Your task to perform on an android device: change the clock display to show seconds Image 0: 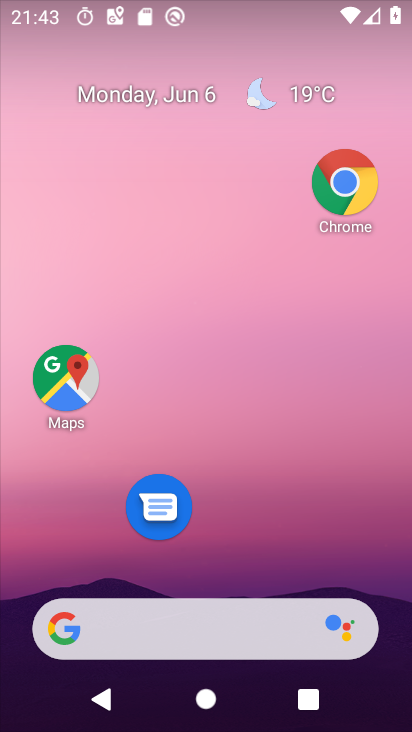
Step 0: press home button
Your task to perform on an android device: change the clock display to show seconds Image 1: 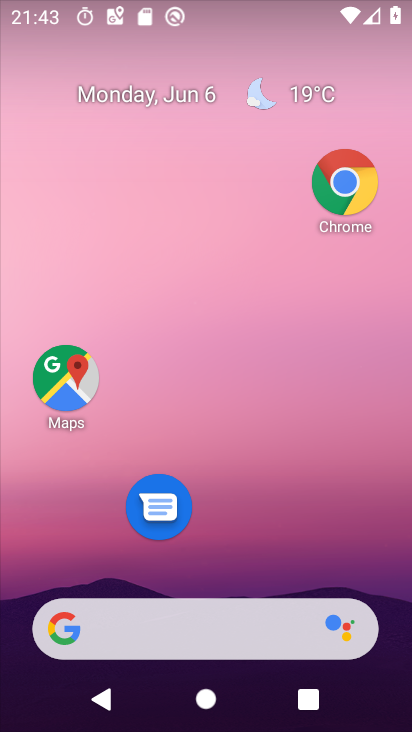
Step 1: drag from (396, 535) to (371, 45)
Your task to perform on an android device: change the clock display to show seconds Image 2: 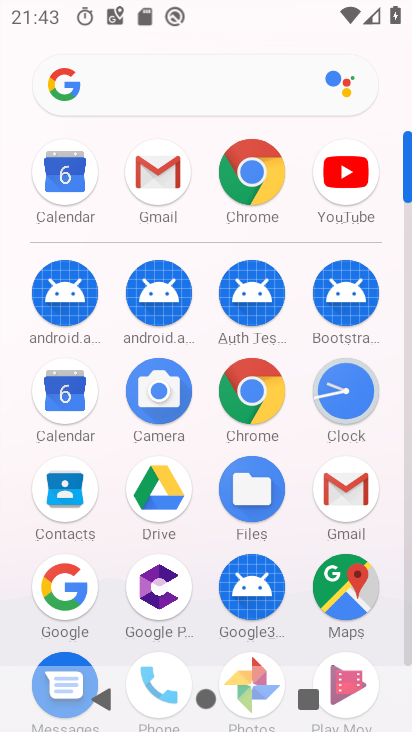
Step 2: click (322, 390)
Your task to perform on an android device: change the clock display to show seconds Image 3: 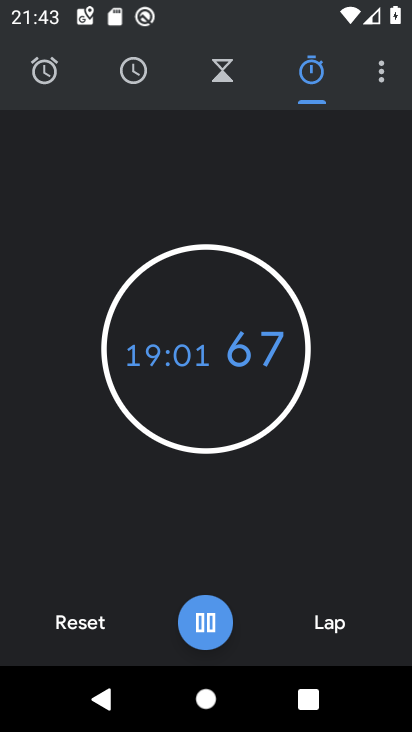
Step 3: click (392, 70)
Your task to perform on an android device: change the clock display to show seconds Image 4: 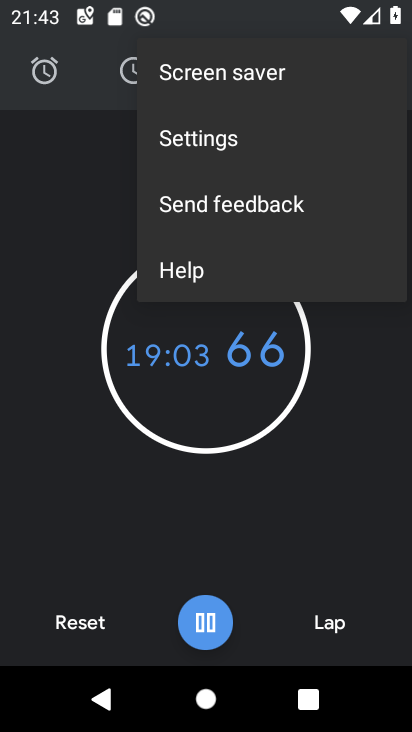
Step 4: click (273, 149)
Your task to perform on an android device: change the clock display to show seconds Image 5: 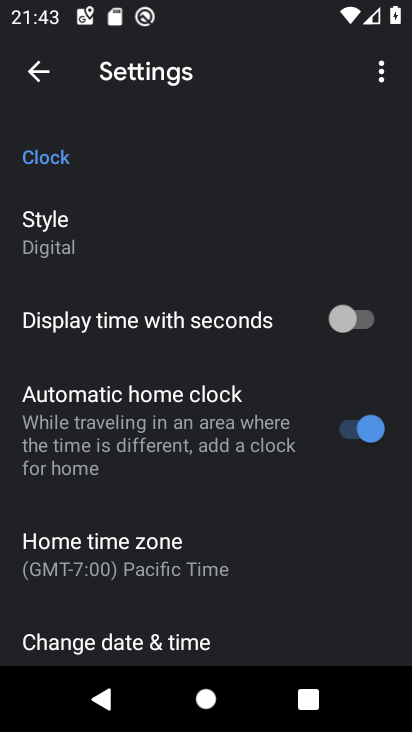
Step 5: click (232, 330)
Your task to perform on an android device: change the clock display to show seconds Image 6: 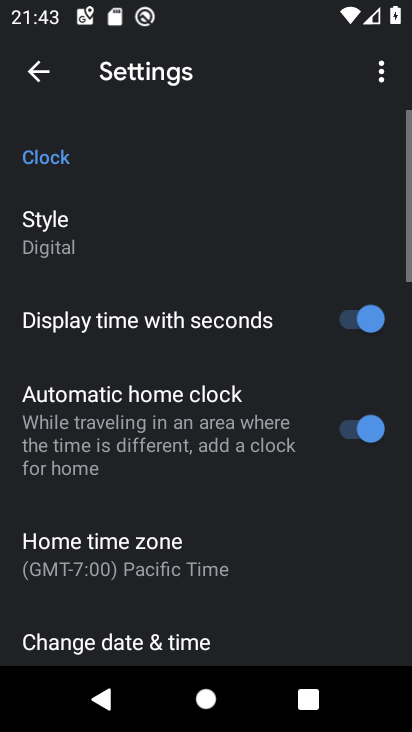
Step 6: task complete